Your task to perform on an android device: Open Google Chrome and open the bookmarks view Image 0: 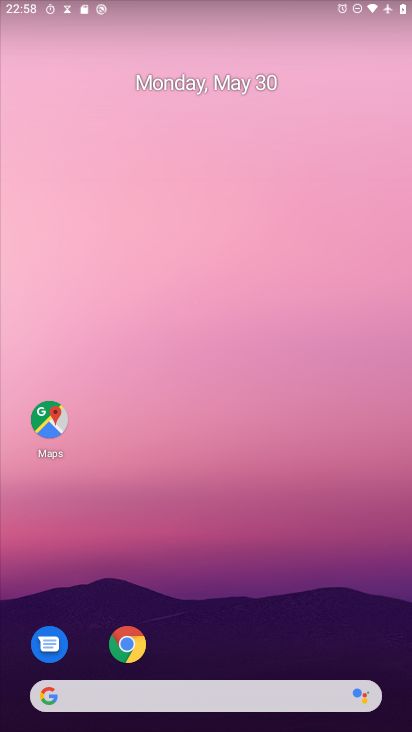
Step 0: click (129, 642)
Your task to perform on an android device: Open Google Chrome and open the bookmarks view Image 1: 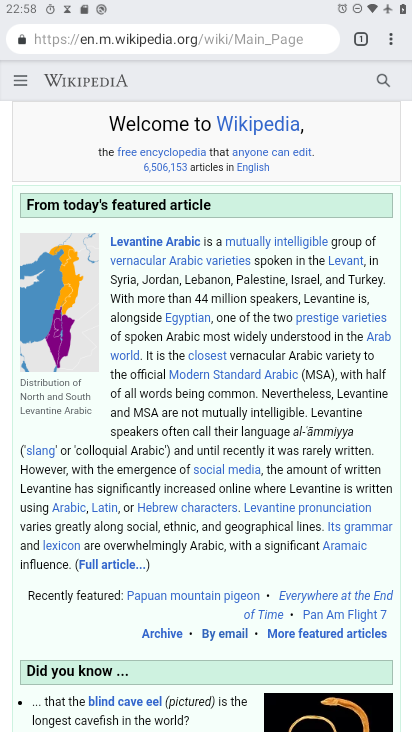
Step 1: click (383, 39)
Your task to perform on an android device: Open Google Chrome and open the bookmarks view Image 2: 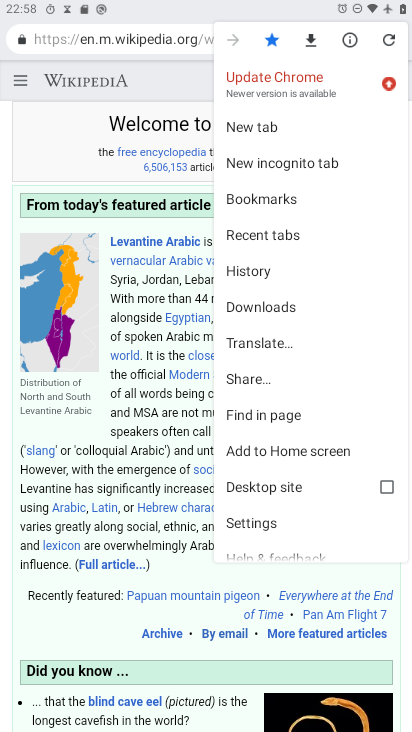
Step 2: click (273, 199)
Your task to perform on an android device: Open Google Chrome and open the bookmarks view Image 3: 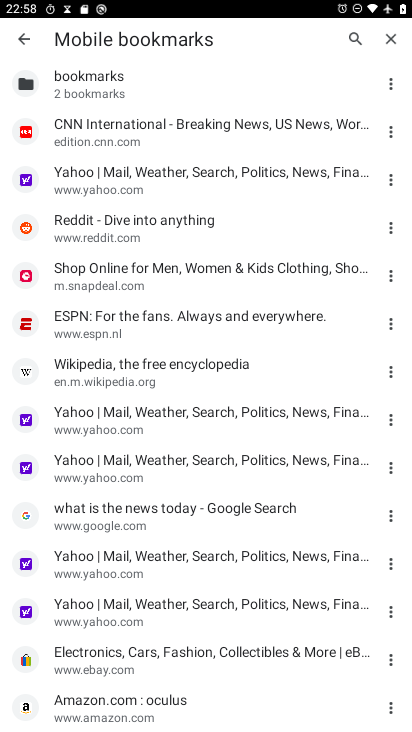
Step 3: click (109, 177)
Your task to perform on an android device: Open Google Chrome and open the bookmarks view Image 4: 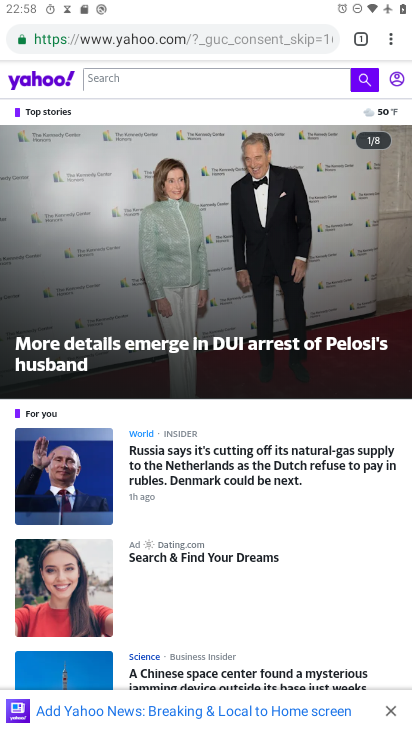
Step 4: task complete